Your task to perform on an android device: turn on the 24-hour format for clock Image 0: 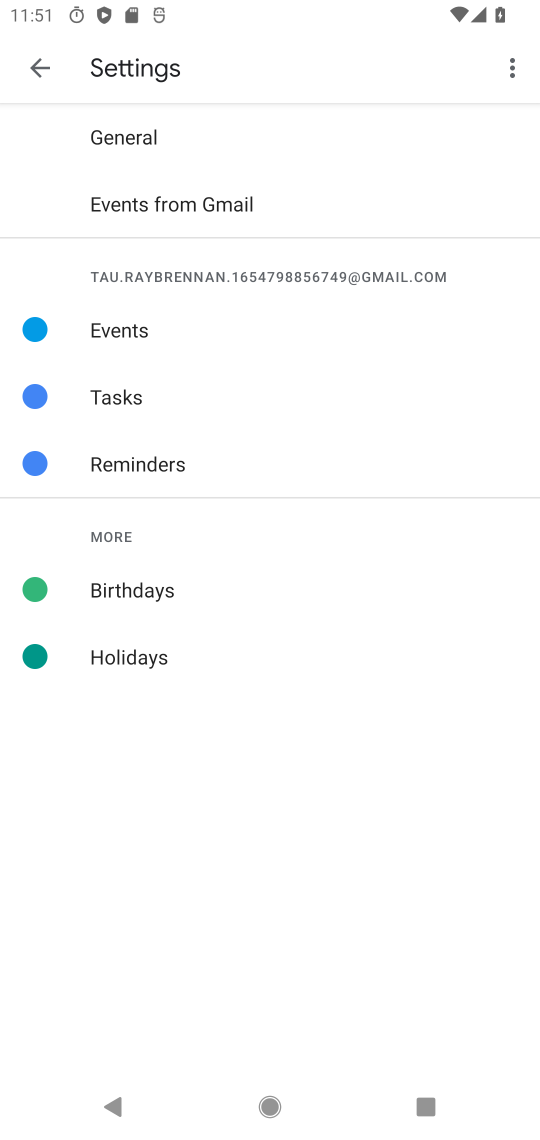
Step 0: press home button
Your task to perform on an android device: turn on the 24-hour format for clock Image 1: 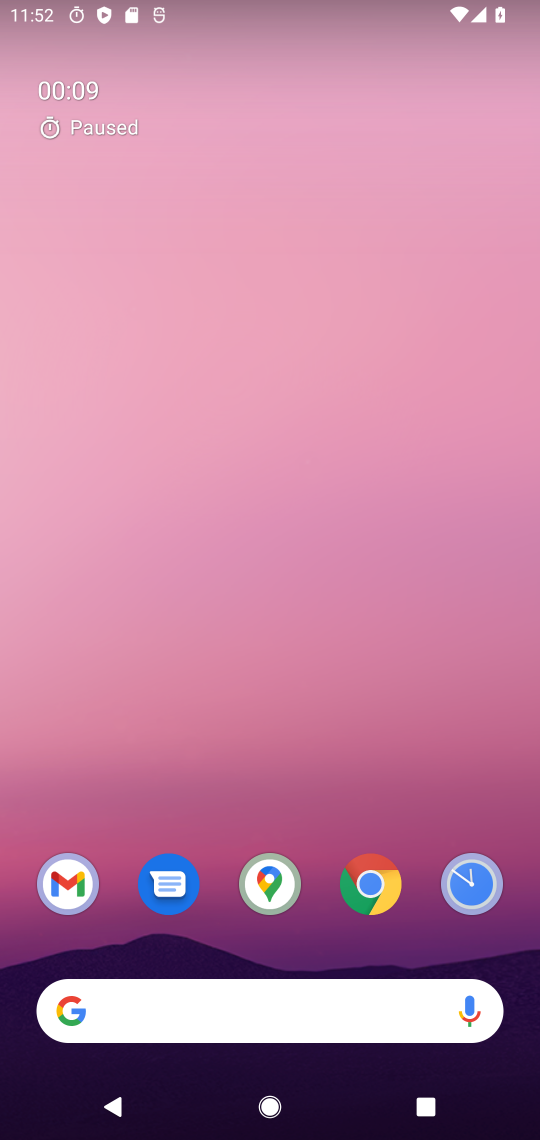
Step 1: drag from (246, 724) to (291, 27)
Your task to perform on an android device: turn on the 24-hour format for clock Image 2: 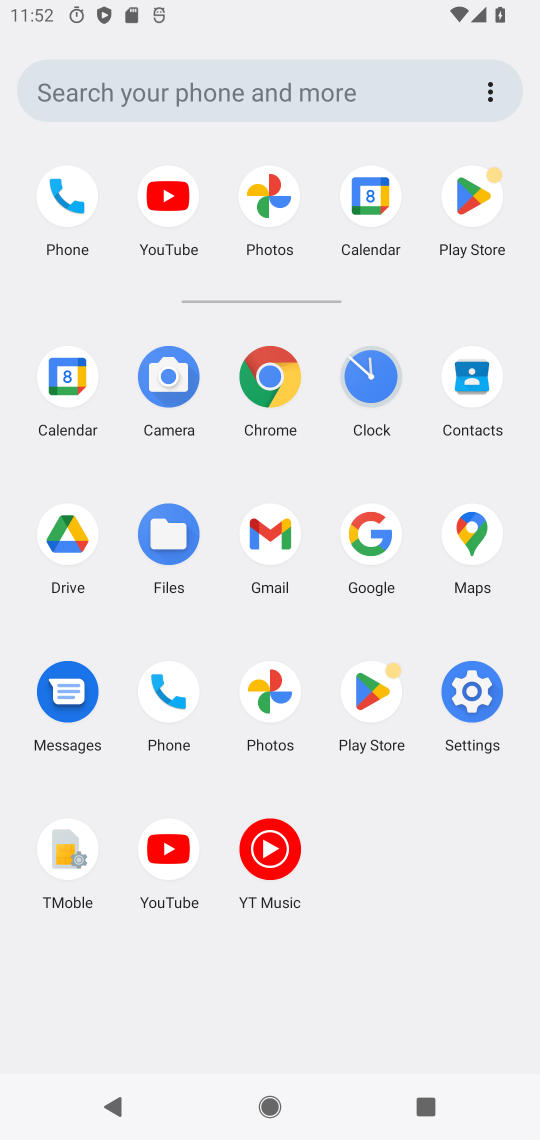
Step 2: click (363, 395)
Your task to perform on an android device: turn on the 24-hour format for clock Image 3: 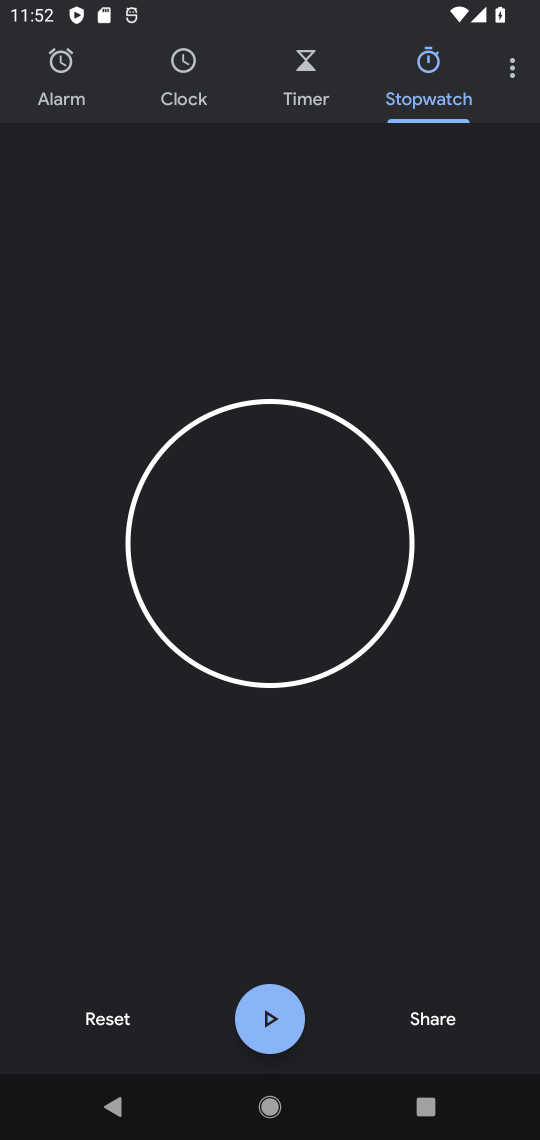
Step 3: click (510, 73)
Your task to perform on an android device: turn on the 24-hour format for clock Image 4: 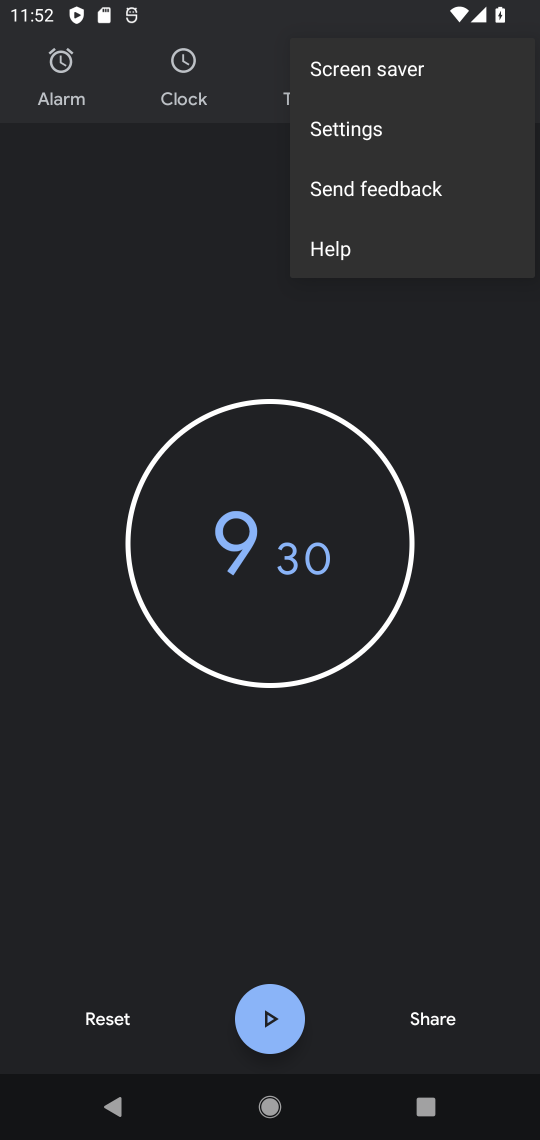
Step 4: click (371, 119)
Your task to perform on an android device: turn on the 24-hour format for clock Image 5: 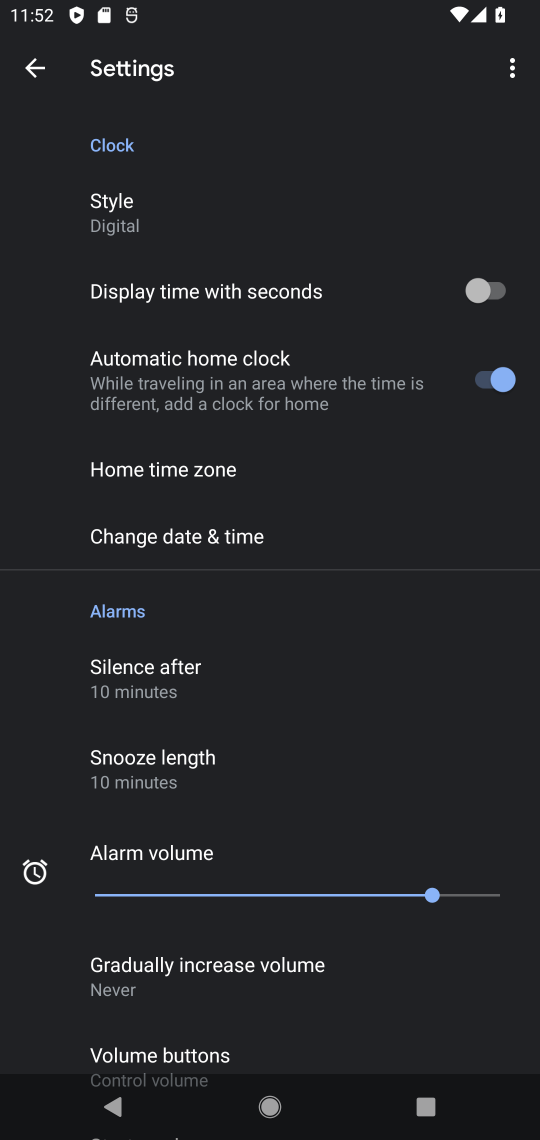
Step 5: click (217, 538)
Your task to perform on an android device: turn on the 24-hour format for clock Image 6: 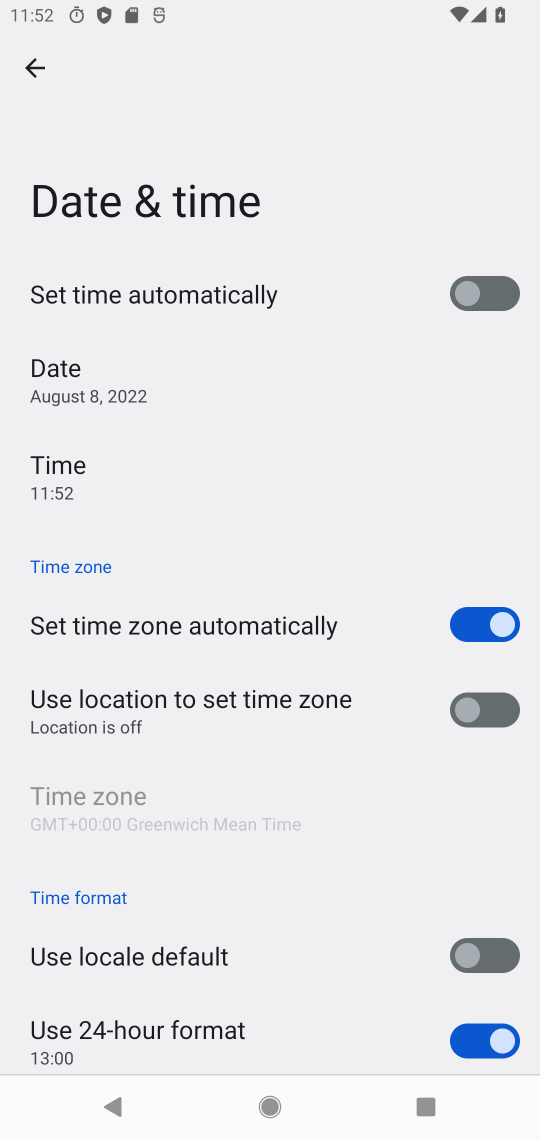
Step 6: task complete